Your task to perform on an android device: change your default location settings in chrome Image 0: 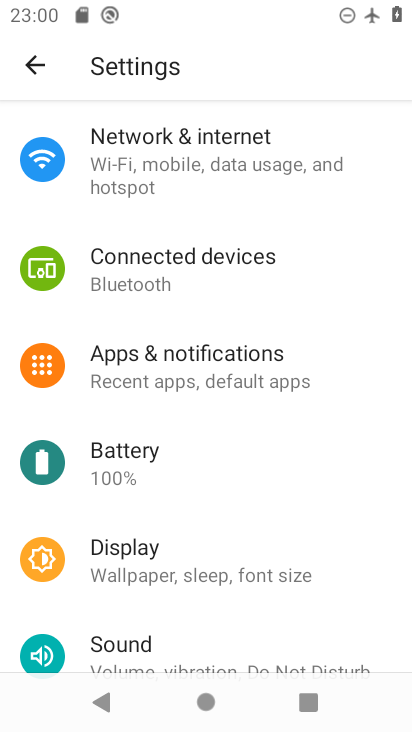
Step 0: press home button
Your task to perform on an android device: change your default location settings in chrome Image 1: 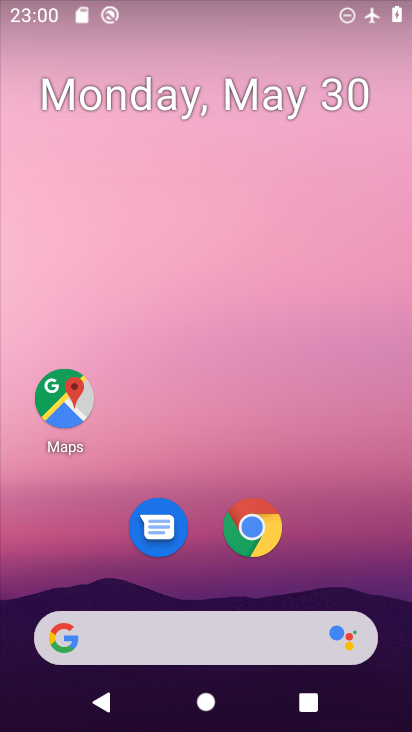
Step 1: drag from (331, 572) to (312, 153)
Your task to perform on an android device: change your default location settings in chrome Image 2: 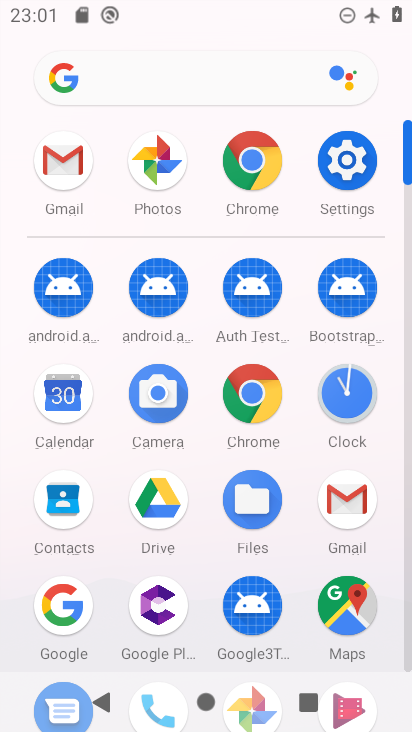
Step 2: click (248, 381)
Your task to perform on an android device: change your default location settings in chrome Image 3: 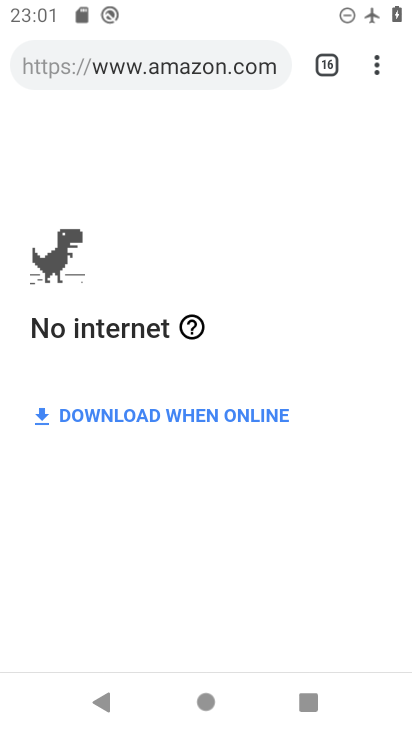
Step 3: click (374, 47)
Your task to perform on an android device: change your default location settings in chrome Image 4: 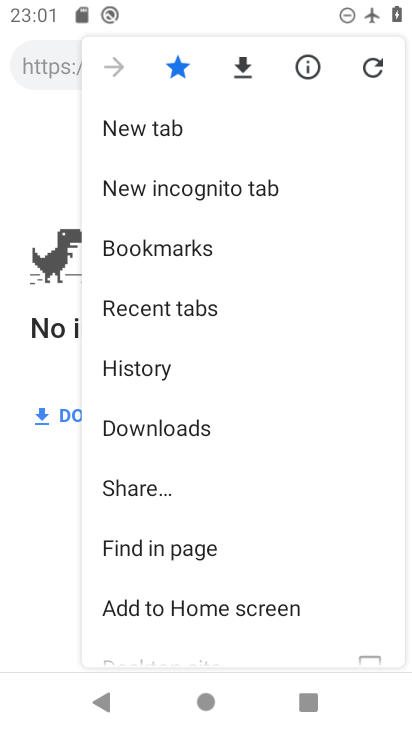
Step 4: drag from (238, 449) to (276, 271)
Your task to perform on an android device: change your default location settings in chrome Image 5: 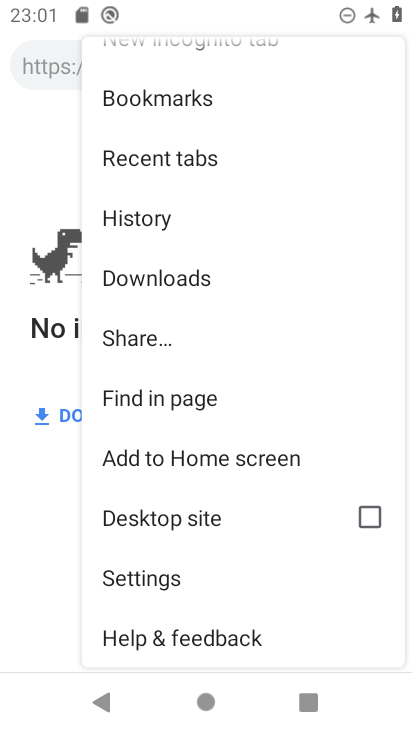
Step 5: click (169, 574)
Your task to perform on an android device: change your default location settings in chrome Image 6: 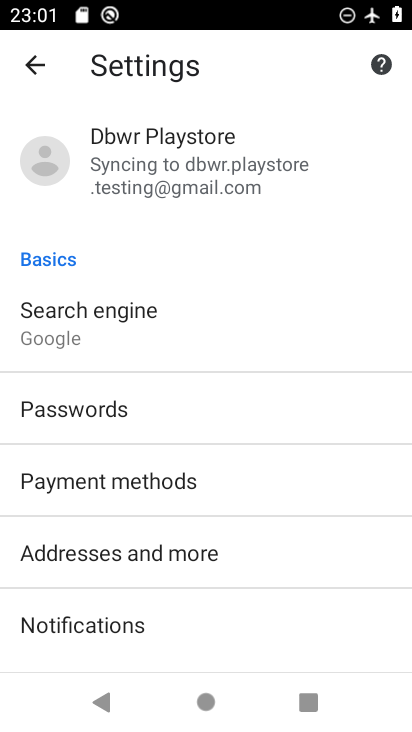
Step 6: drag from (213, 518) to (247, 368)
Your task to perform on an android device: change your default location settings in chrome Image 7: 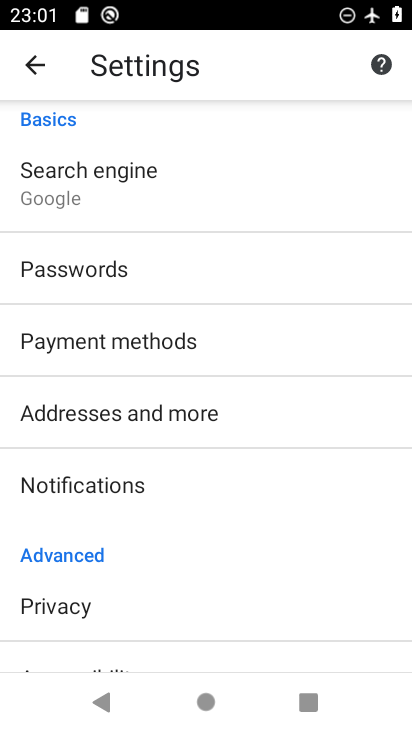
Step 7: drag from (158, 555) to (214, 261)
Your task to perform on an android device: change your default location settings in chrome Image 8: 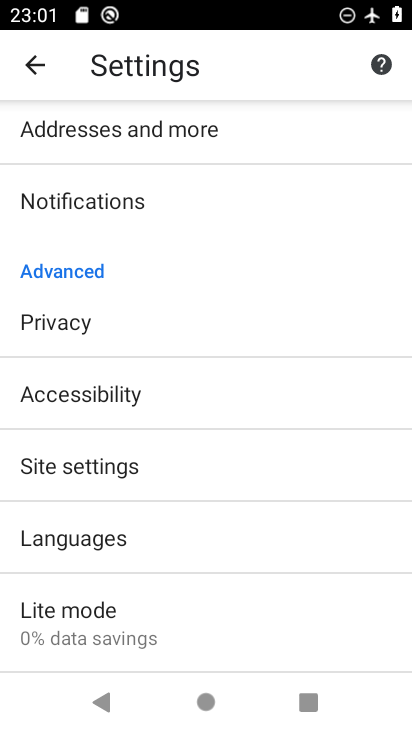
Step 8: drag from (187, 574) to (234, 353)
Your task to perform on an android device: change your default location settings in chrome Image 9: 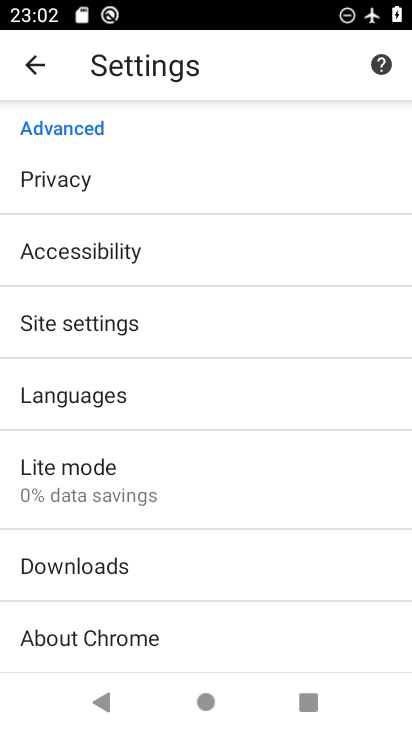
Step 9: click (138, 327)
Your task to perform on an android device: change your default location settings in chrome Image 10: 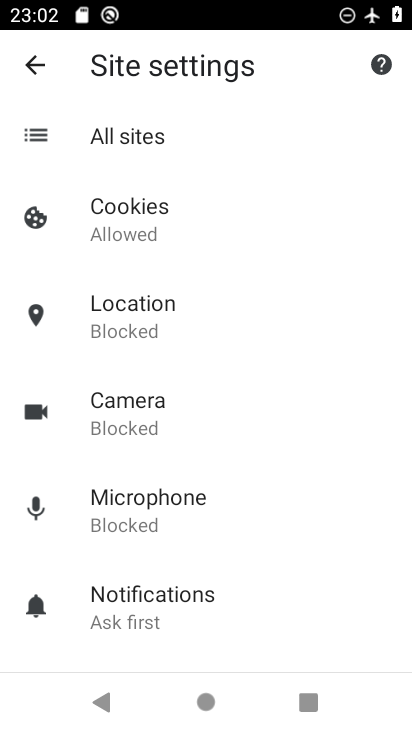
Step 10: click (143, 326)
Your task to perform on an android device: change your default location settings in chrome Image 11: 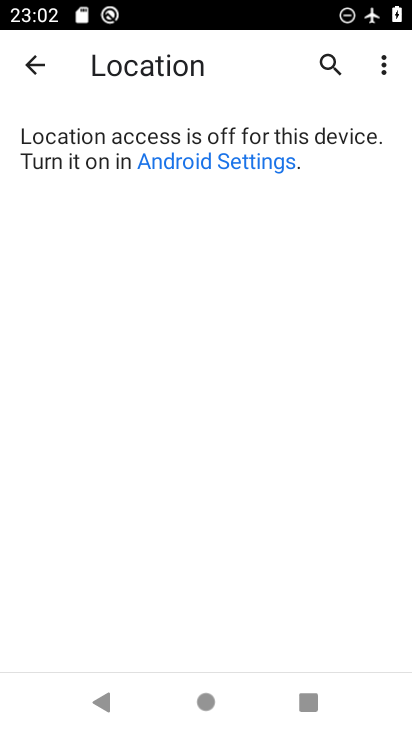
Step 11: task complete